Your task to perform on an android device: Clear the shopping cart on walmart.com. Add usb-c to usb-b to the cart on walmart.com, then select checkout. Image 0: 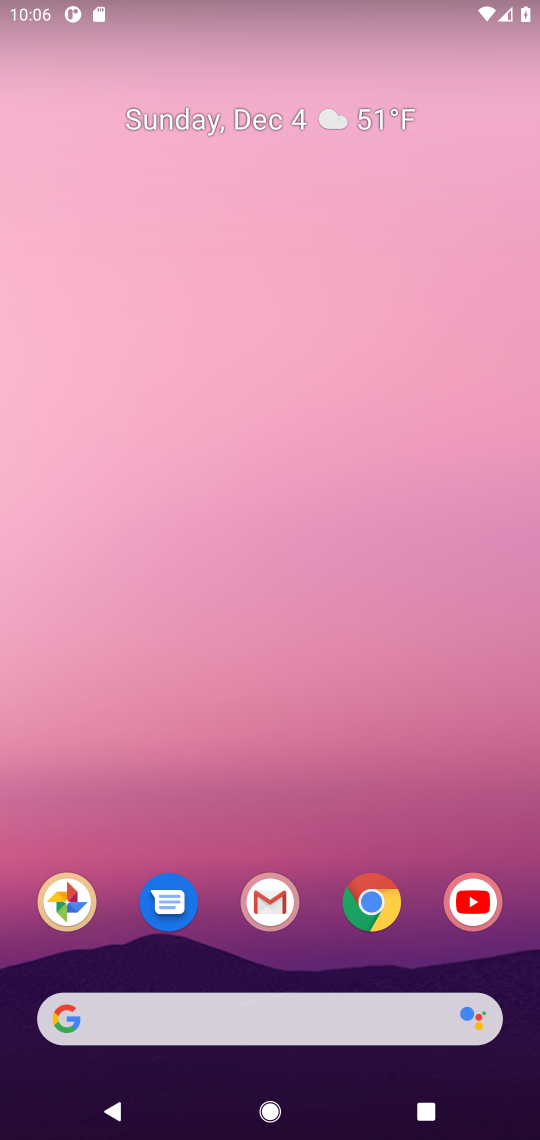
Step 0: click (353, 903)
Your task to perform on an android device: Clear the shopping cart on walmart.com. Add usb-c to usb-b to the cart on walmart.com, then select checkout. Image 1: 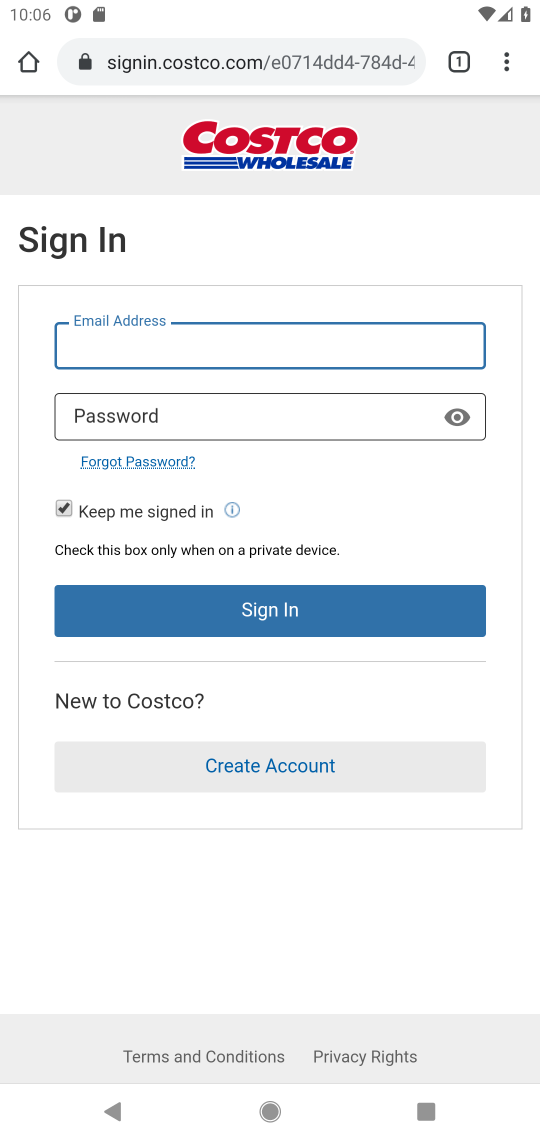
Step 1: click (130, 57)
Your task to perform on an android device: Clear the shopping cart on walmart.com. Add usb-c to usb-b to the cart on walmart.com, then select checkout. Image 2: 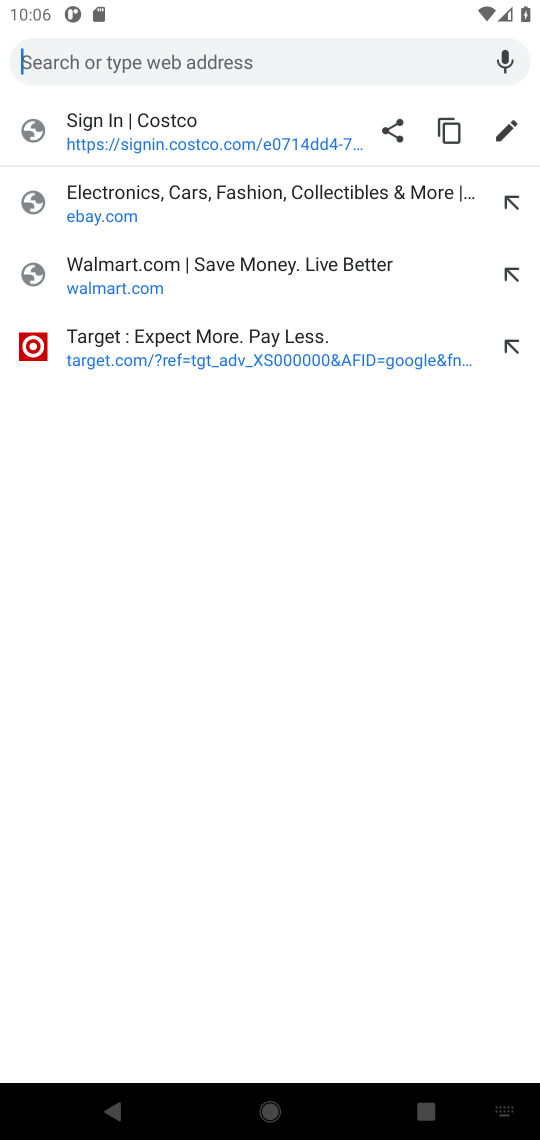
Step 2: click (152, 294)
Your task to perform on an android device: Clear the shopping cart on walmart.com. Add usb-c to usb-b to the cart on walmart.com, then select checkout. Image 3: 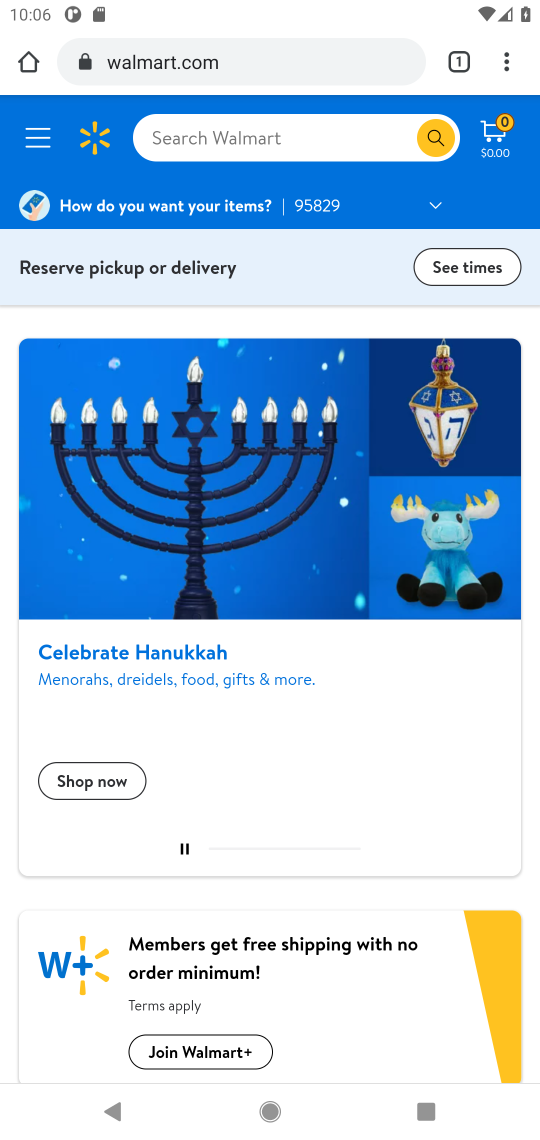
Step 3: click (509, 128)
Your task to perform on an android device: Clear the shopping cart on walmart.com. Add usb-c to usb-b to the cart on walmart.com, then select checkout. Image 4: 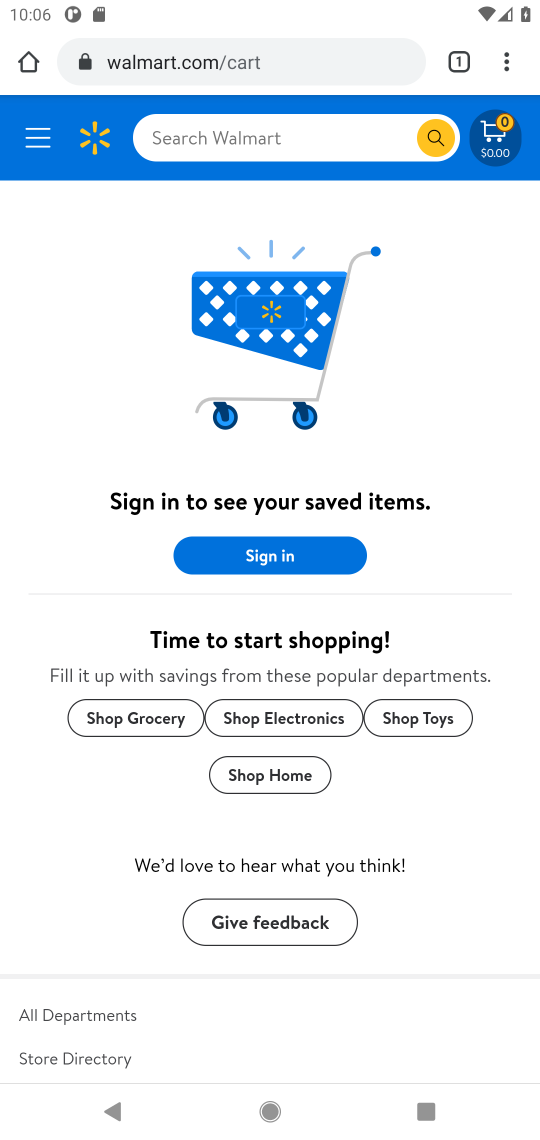
Step 4: click (227, 134)
Your task to perform on an android device: Clear the shopping cart on walmart.com. Add usb-c to usb-b to the cart on walmart.com, then select checkout. Image 5: 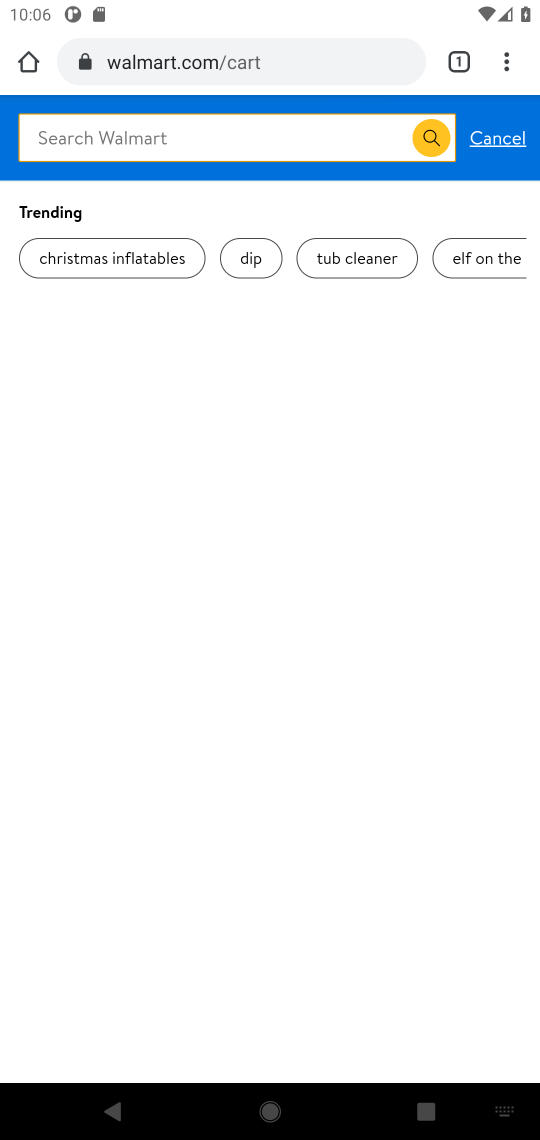
Step 5: type " usb-c to usb-b "
Your task to perform on an android device: Clear the shopping cart on walmart.com. Add usb-c to usb-b to the cart on walmart.com, then select checkout. Image 6: 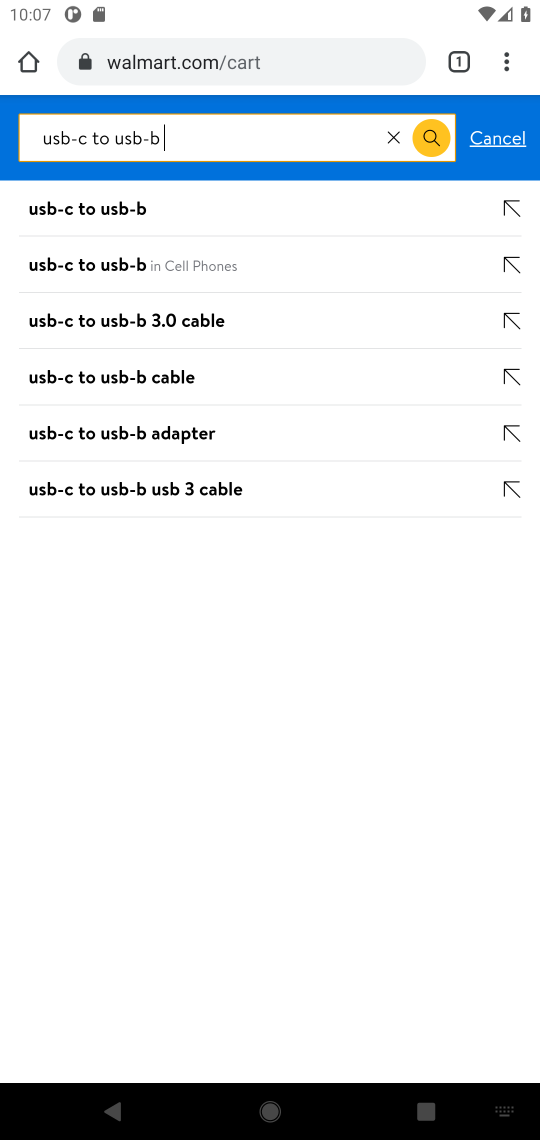
Step 6: click (439, 148)
Your task to perform on an android device: Clear the shopping cart on walmart.com. Add usb-c to usb-b to the cart on walmart.com, then select checkout. Image 7: 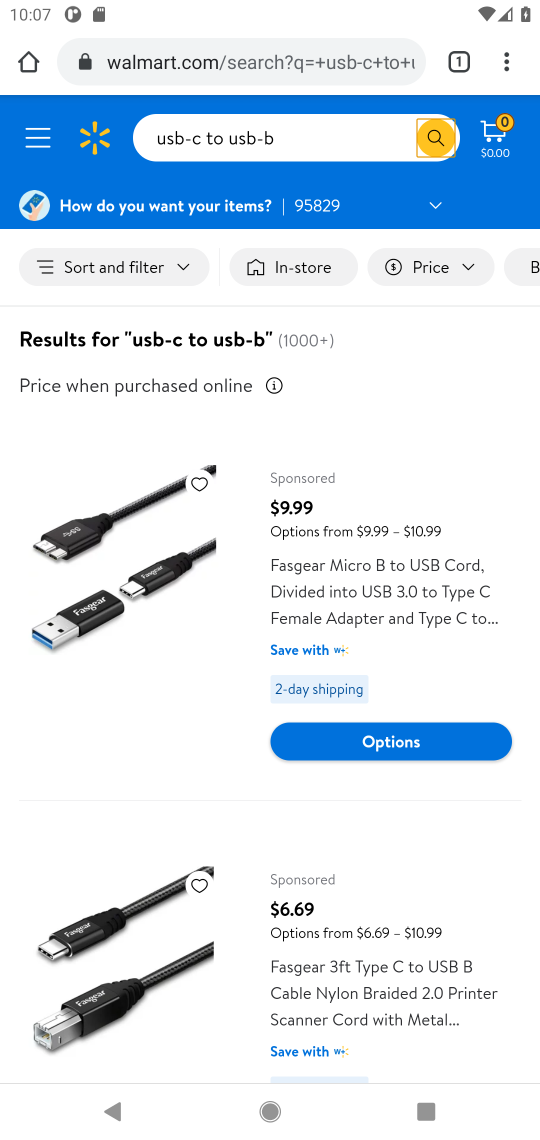
Step 7: drag from (363, 1008) to (461, 531)
Your task to perform on an android device: Clear the shopping cart on walmart.com. Add usb-c to usb-b to the cart on walmart.com, then select checkout. Image 8: 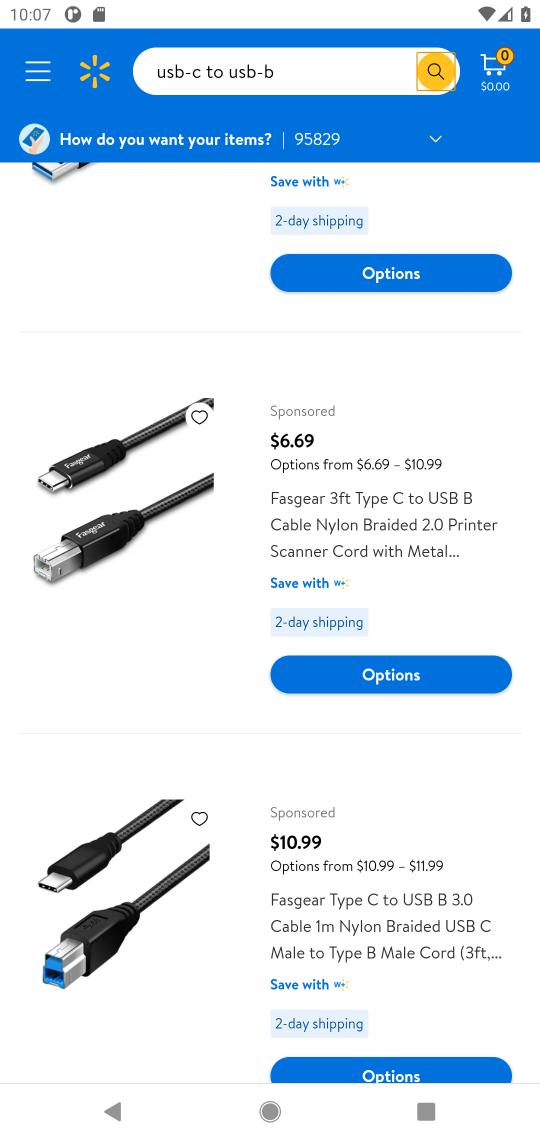
Step 8: click (365, 672)
Your task to perform on an android device: Clear the shopping cart on walmart.com. Add usb-c to usb-b to the cart on walmart.com, then select checkout. Image 9: 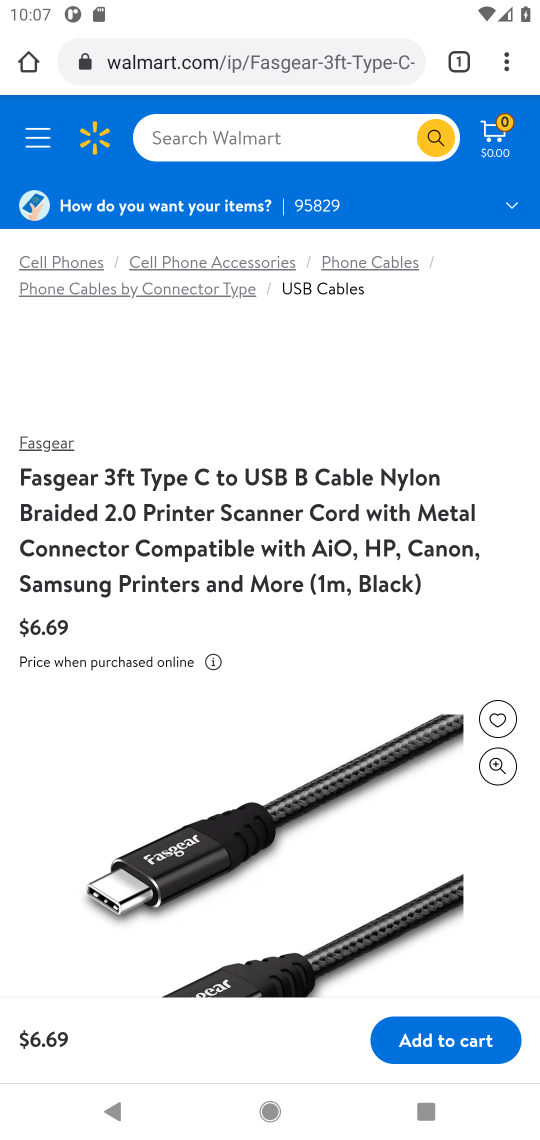
Step 9: click (442, 1049)
Your task to perform on an android device: Clear the shopping cart on walmart.com. Add usb-c to usb-b to the cart on walmart.com, then select checkout. Image 10: 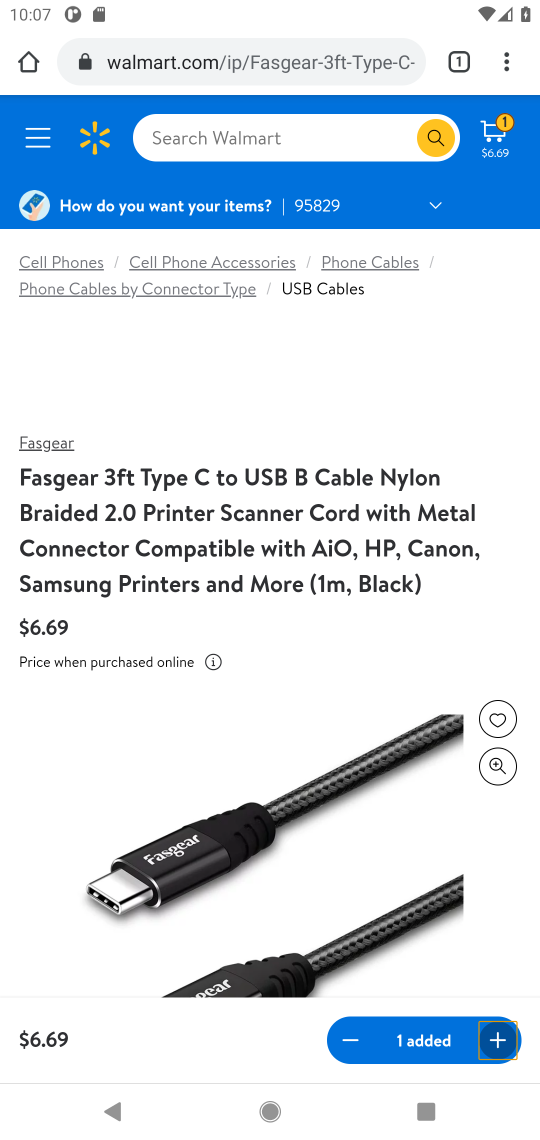
Step 10: click (497, 133)
Your task to perform on an android device: Clear the shopping cart on walmart.com. Add usb-c to usb-b to the cart on walmart.com, then select checkout. Image 11: 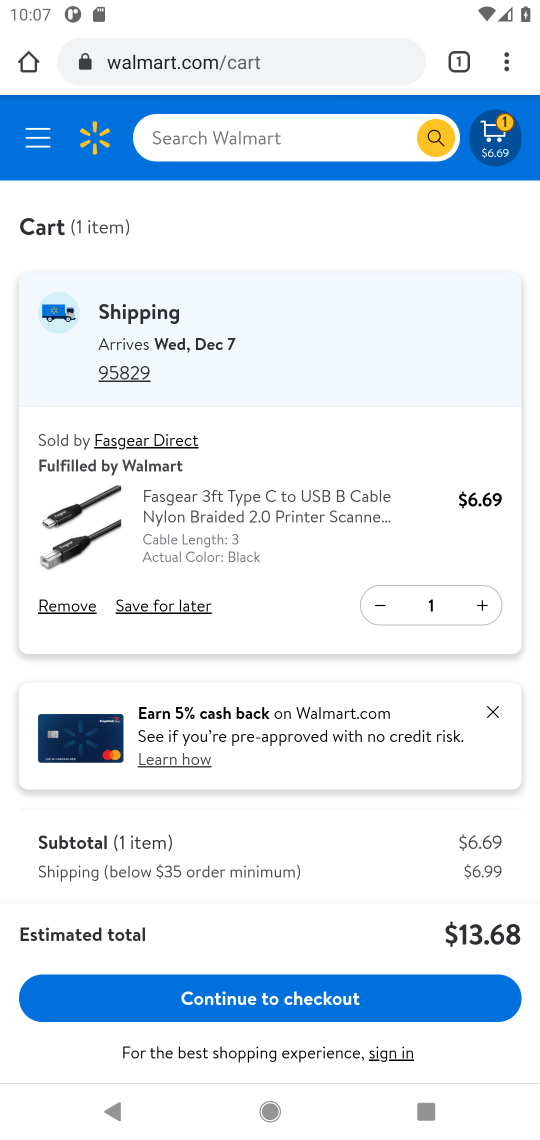
Step 11: click (277, 997)
Your task to perform on an android device: Clear the shopping cart on walmart.com. Add usb-c to usb-b to the cart on walmart.com, then select checkout. Image 12: 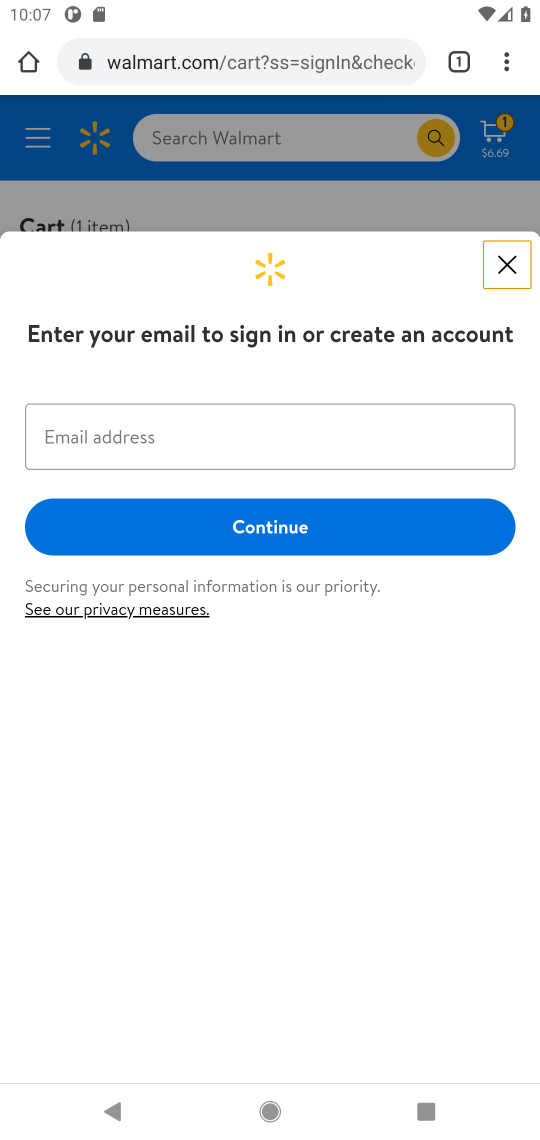
Step 12: task complete